Your task to perform on an android device: Show me the alarms in the clock app Image 0: 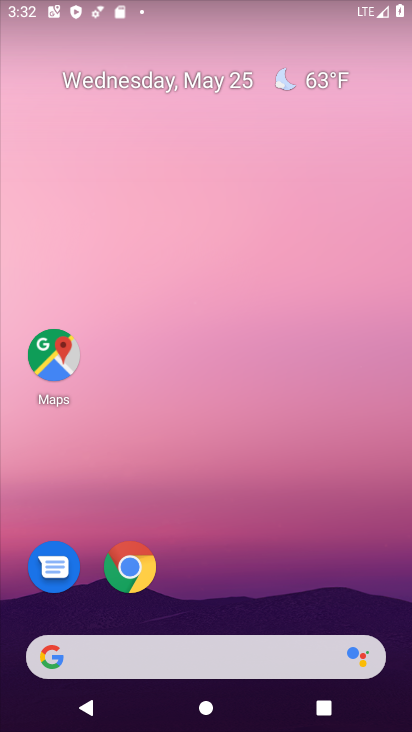
Step 0: drag from (225, 597) to (243, 151)
Your task to perform on an android device: Show me the alarms in the clock app Image 1: 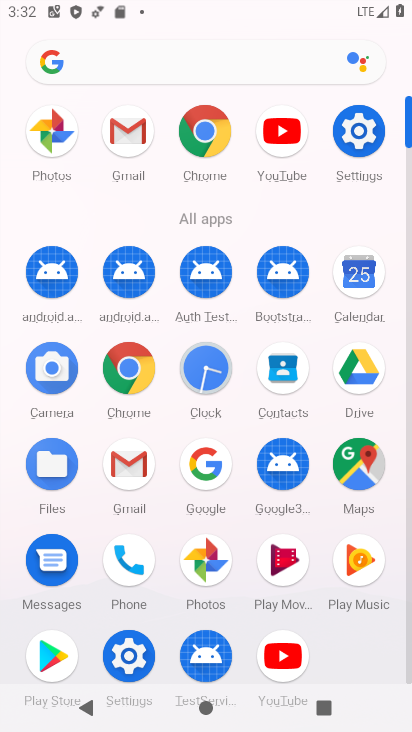
Step 1: click (202, 366)
Your task to perform on an android device: Show me the alarms in the clock app Image 2: 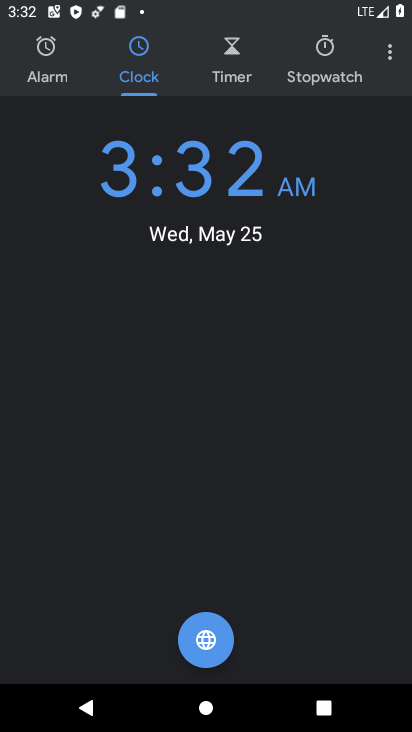
Step 2: click (385, 52)
Your task to perform on an android device: Show me the alarms in the clock app Image 3: 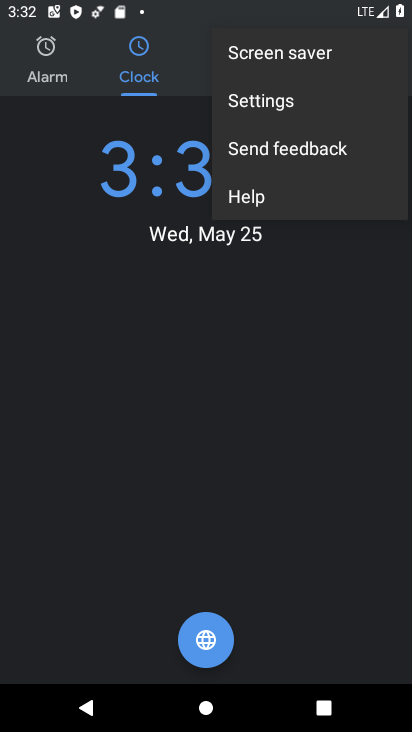
Step 3: click (260, 100)
Your task to perform on an android device: Show me the alarms in the clock app Image 4: 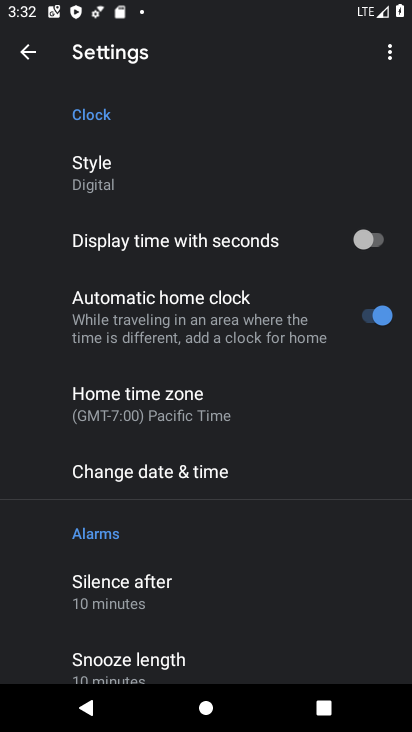
Step 4: click (35, 55)
Your task to perform on an android device: Show me the alarms in the clock app Image 5: 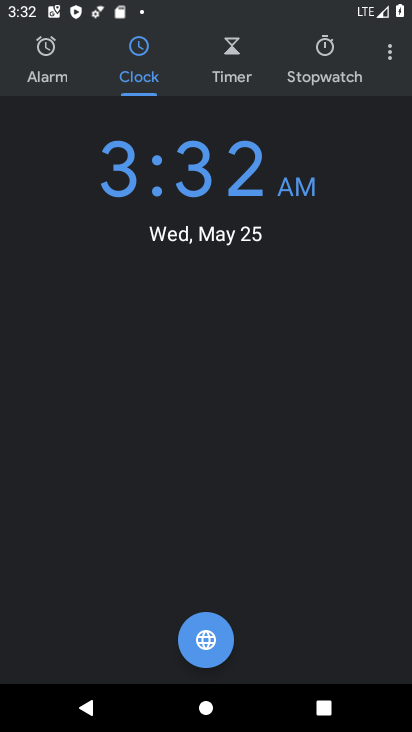
Step 5: click (39, 59)
Your task to perform on an android device: Show me the alarms in the clock app Image 6: 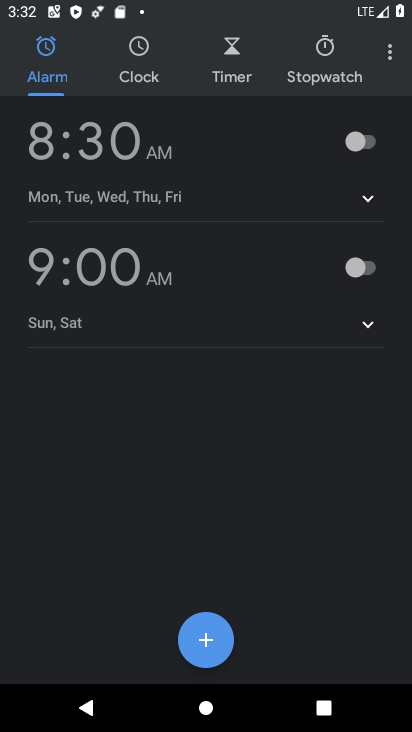
Step 6: task complete